Your task to perform on an android device: open app "YouTube Kids" Image 0: 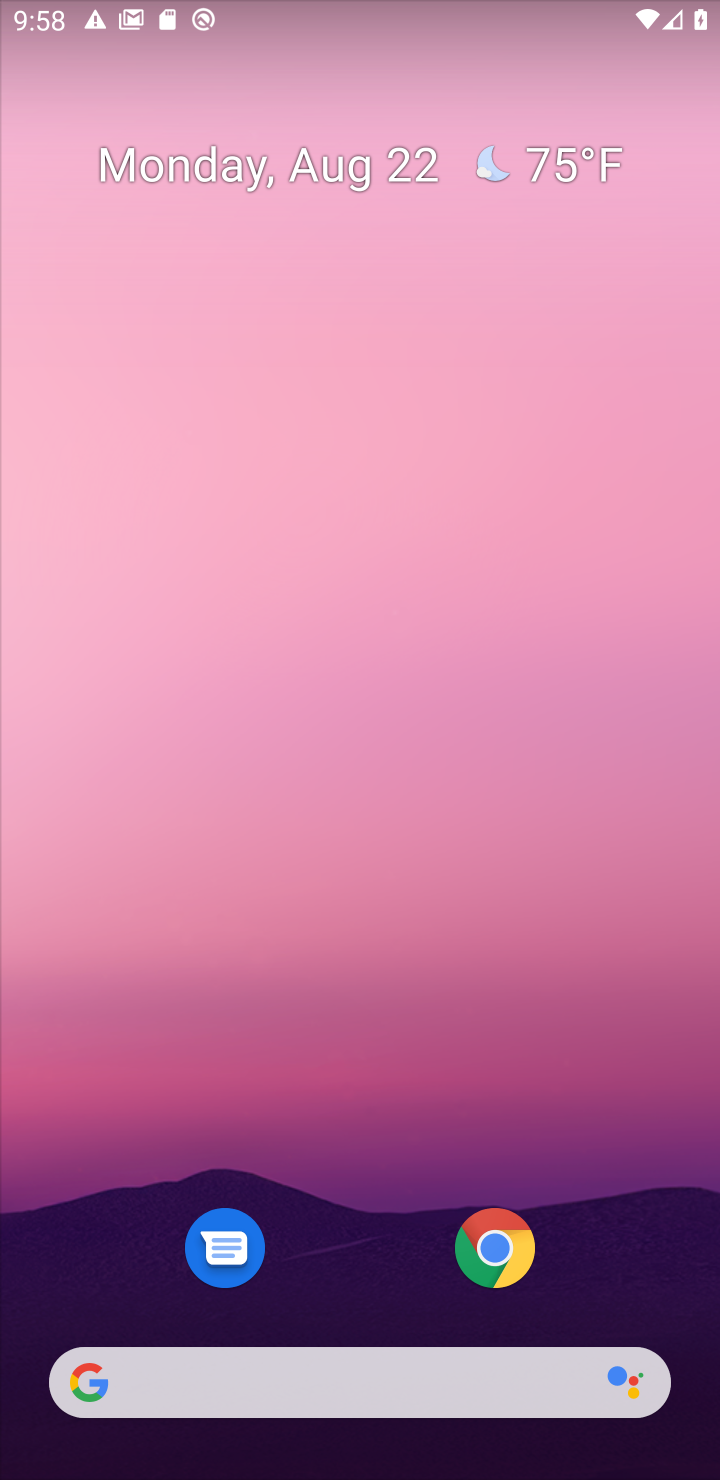
Step 0: drag from (367, 968) to (345, 241)
Your task to perform on an android device: open app "YouTube Kids" Image 1: 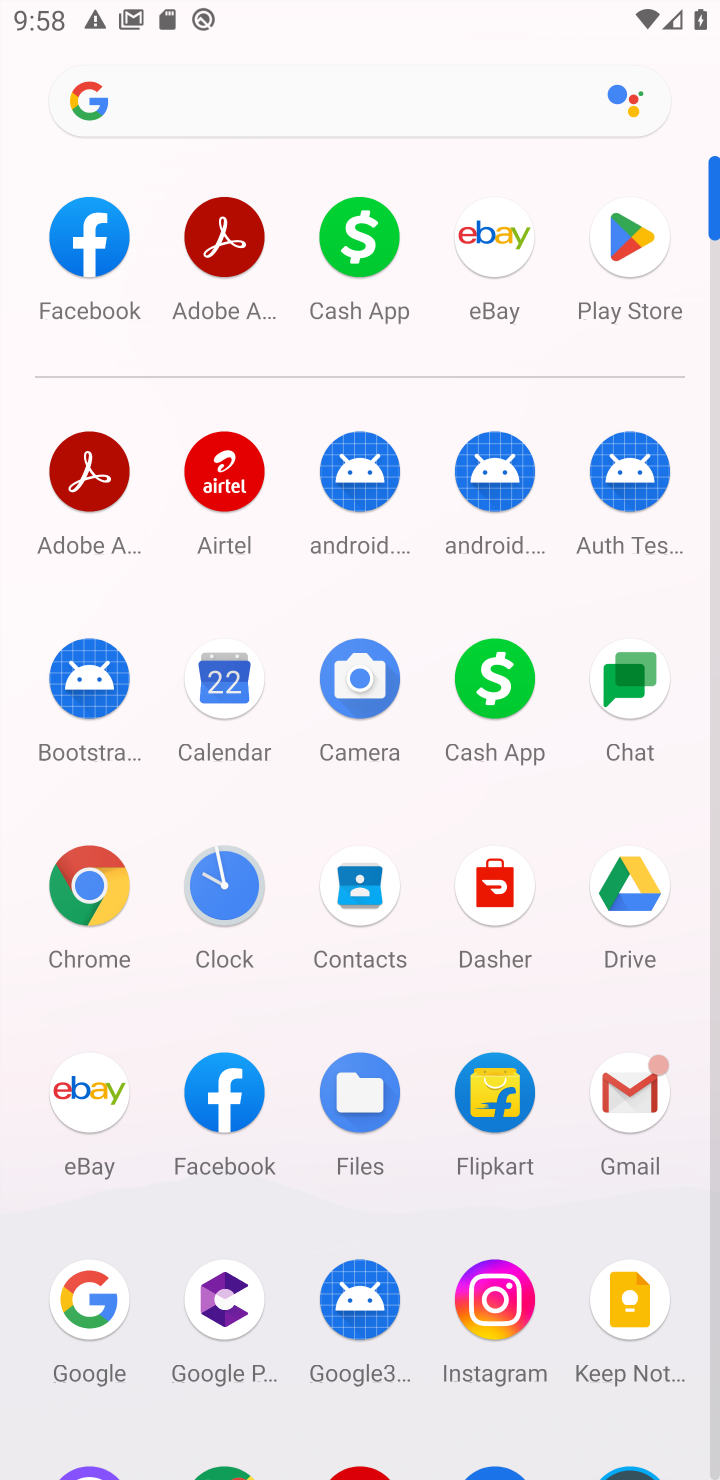
Step 1: click (616, 231)
Your task to perform on an android device: open app "YouTube Kids" Image 2: 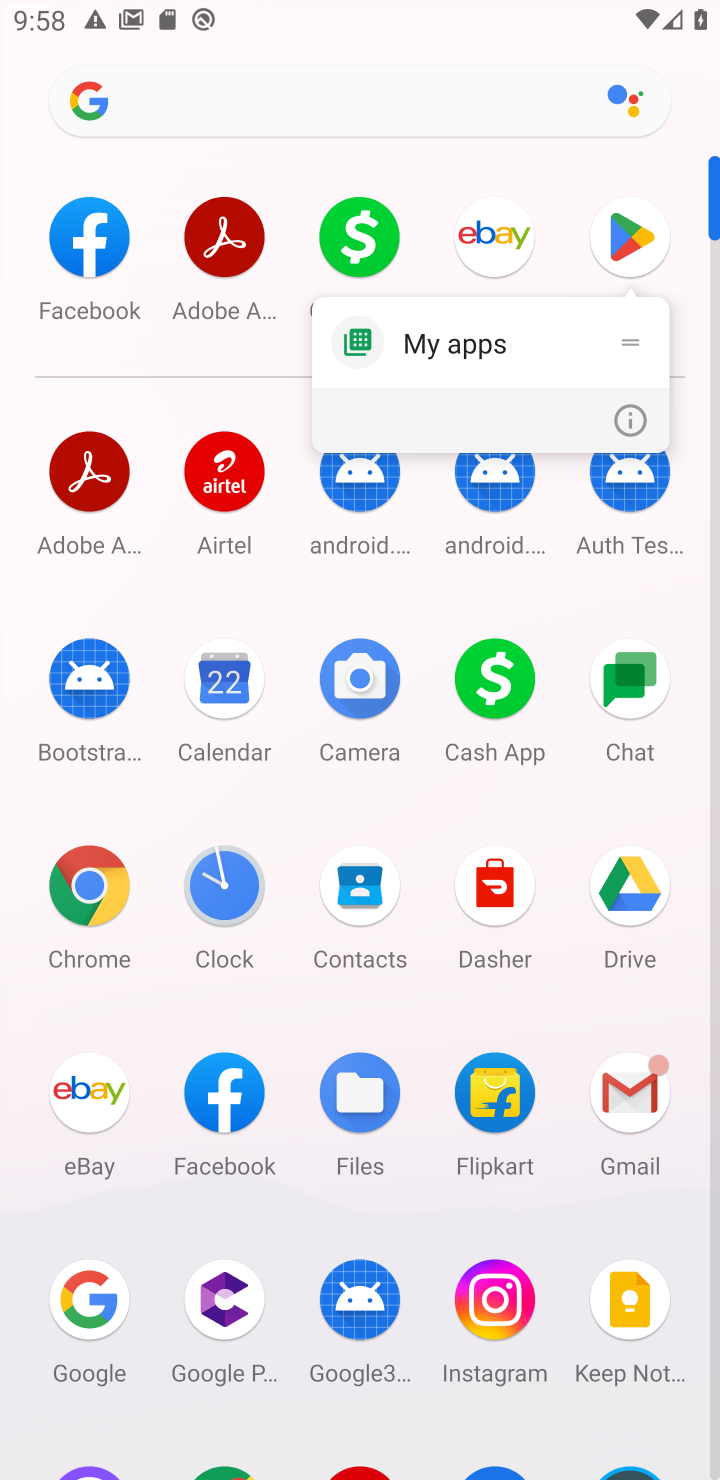
Step 2: click (616, 231)
Your task to perform on an android device: open app "YouTube Kids" Image 3: 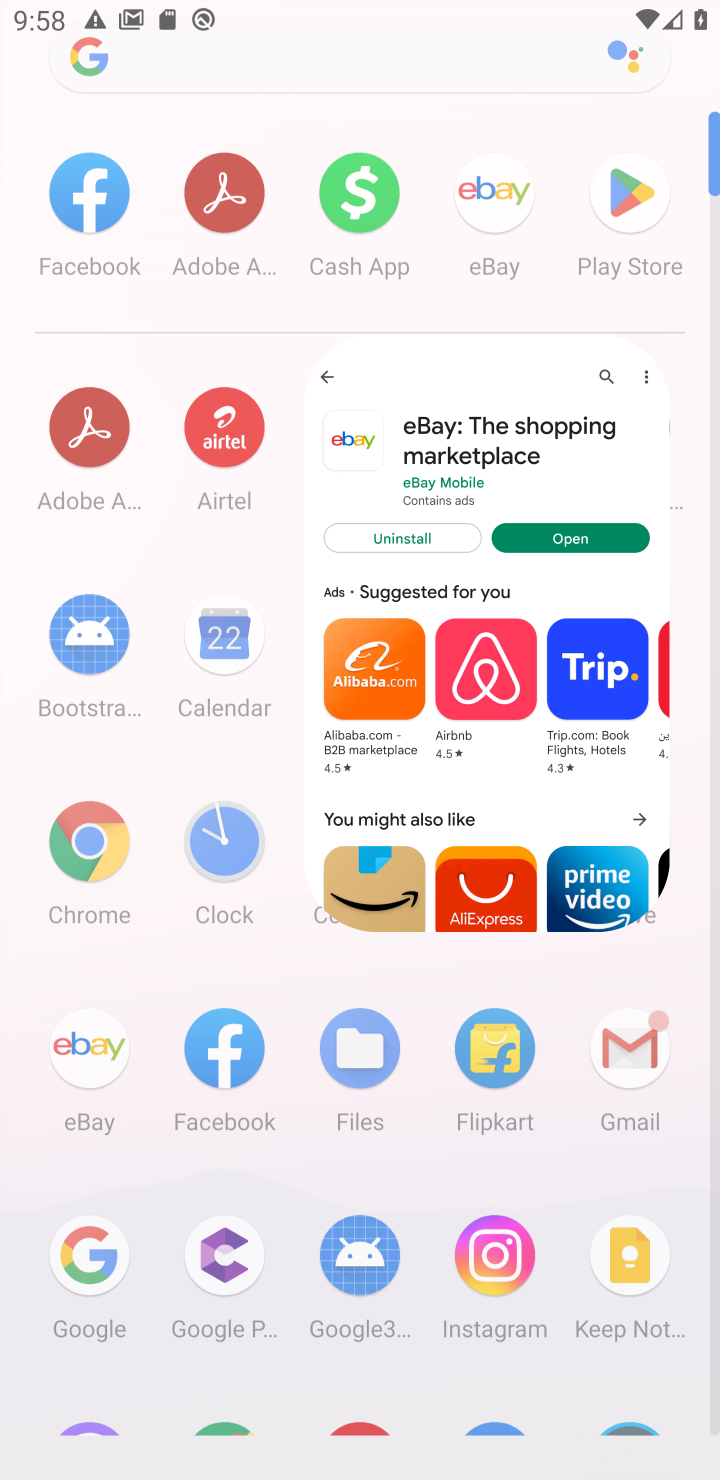
Step 3: click (616, 231)
Your task to perform on an android device: open app "YouTube Kids" Image 4: 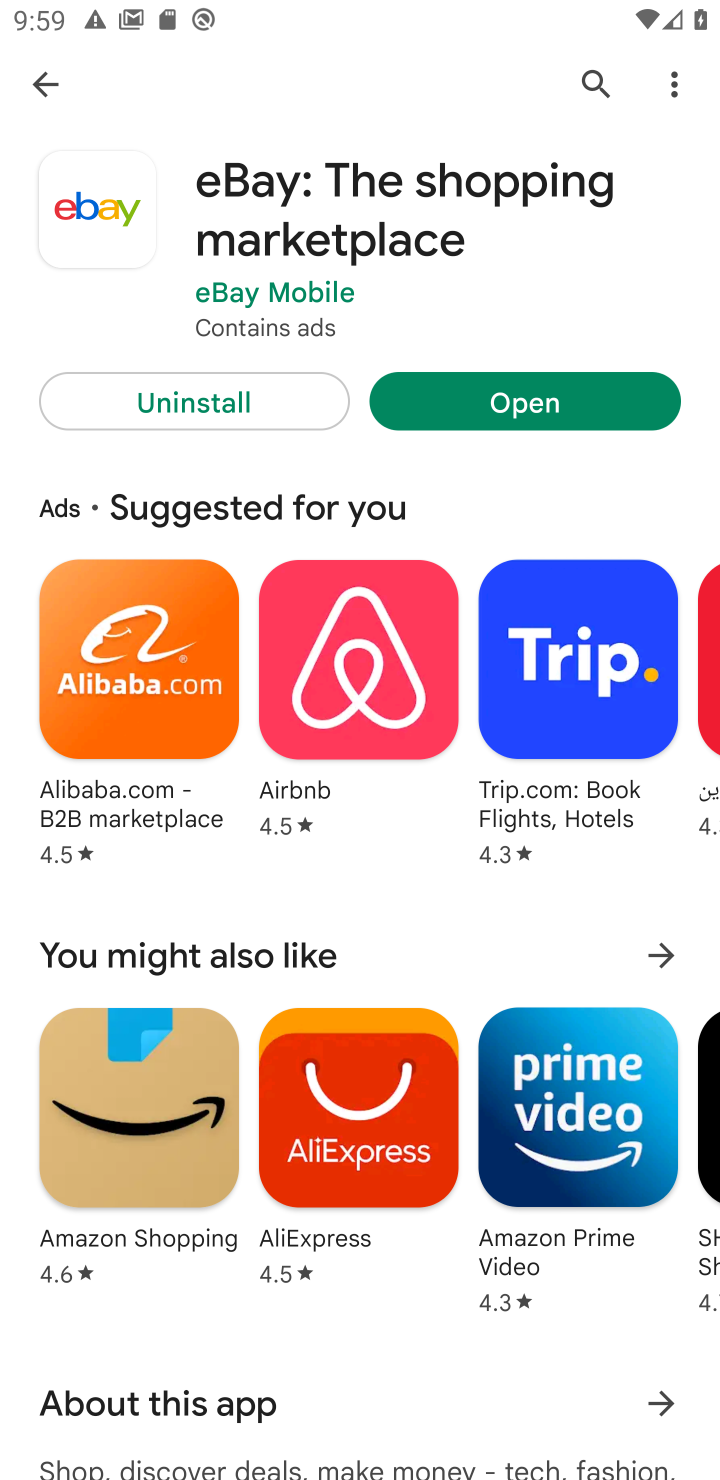
Step 4: click (589, 73)
Your task to perform on an android device: open app "YouTube Kids" Image 5: 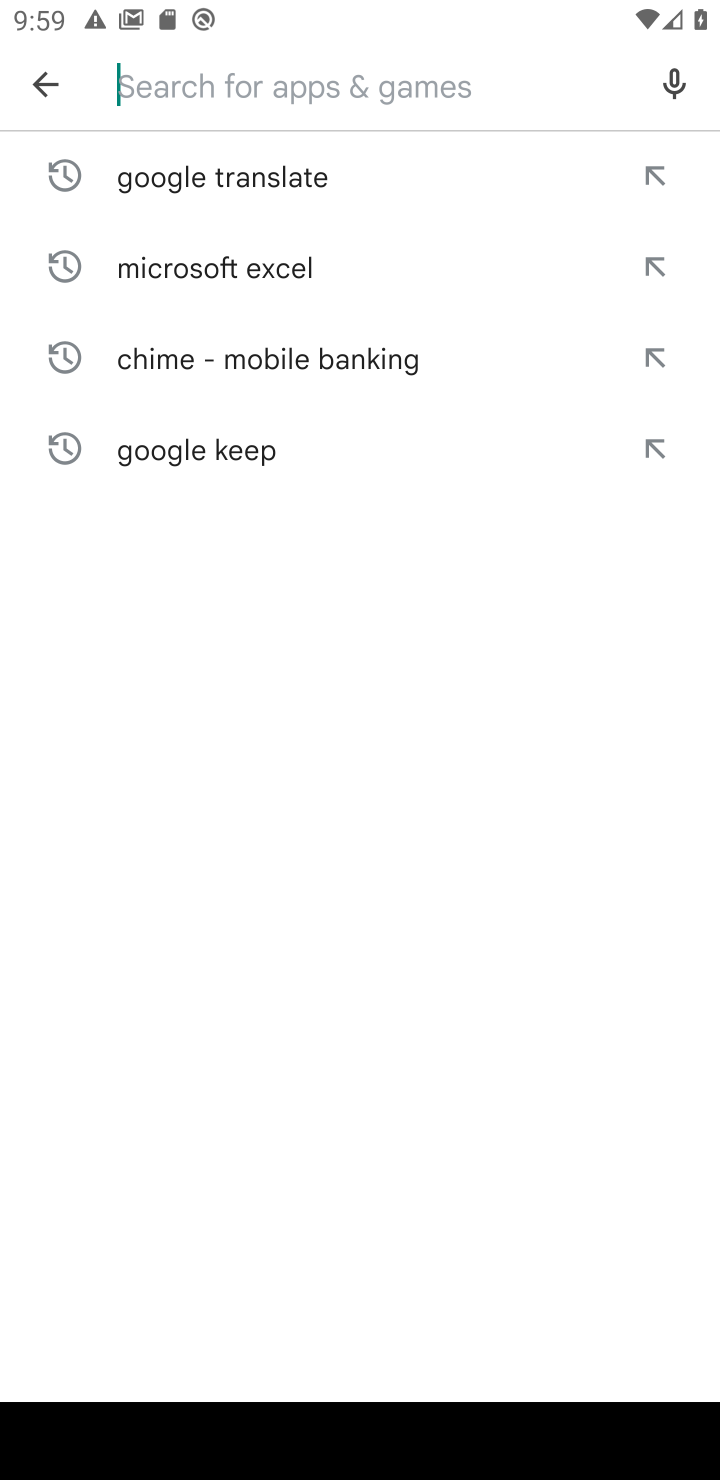
Step 5: type "YouTube Kids"
Your task to perform on an android device: open app "YouTube Kids" Image 6: 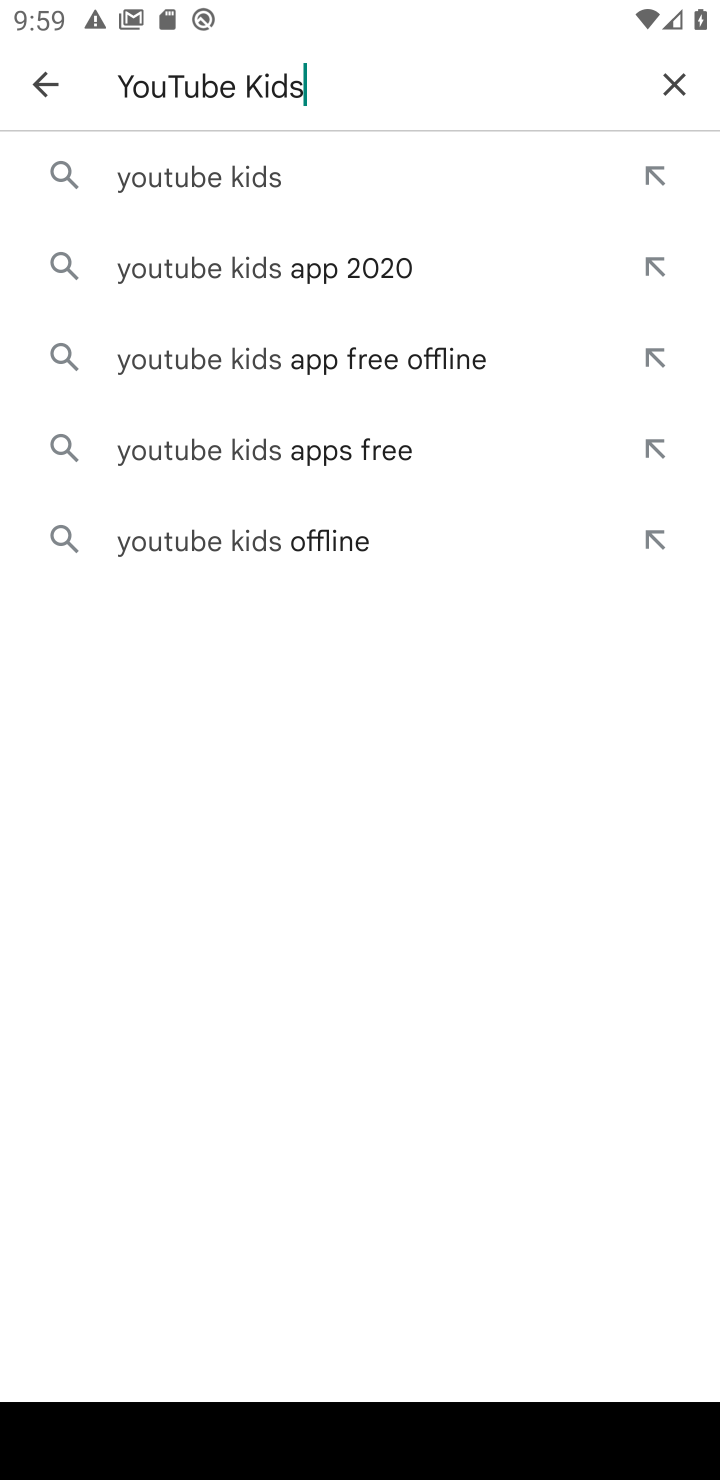
Step 6: click (200, 168)
Your task to perform on an android device: open app "YouTube Kids" Image 7: 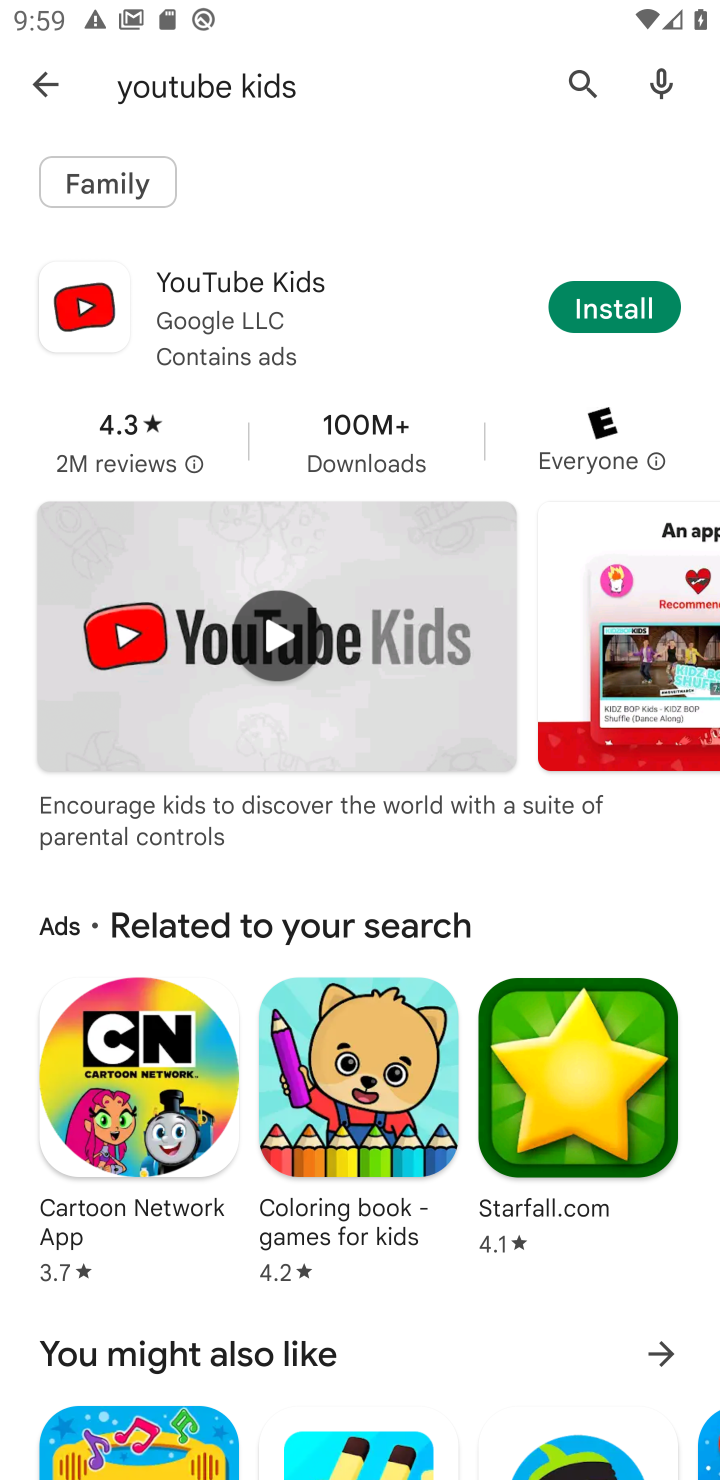
Step 7: task complete